Your task to perform on an android device: What's on my calendar today? Image 0: 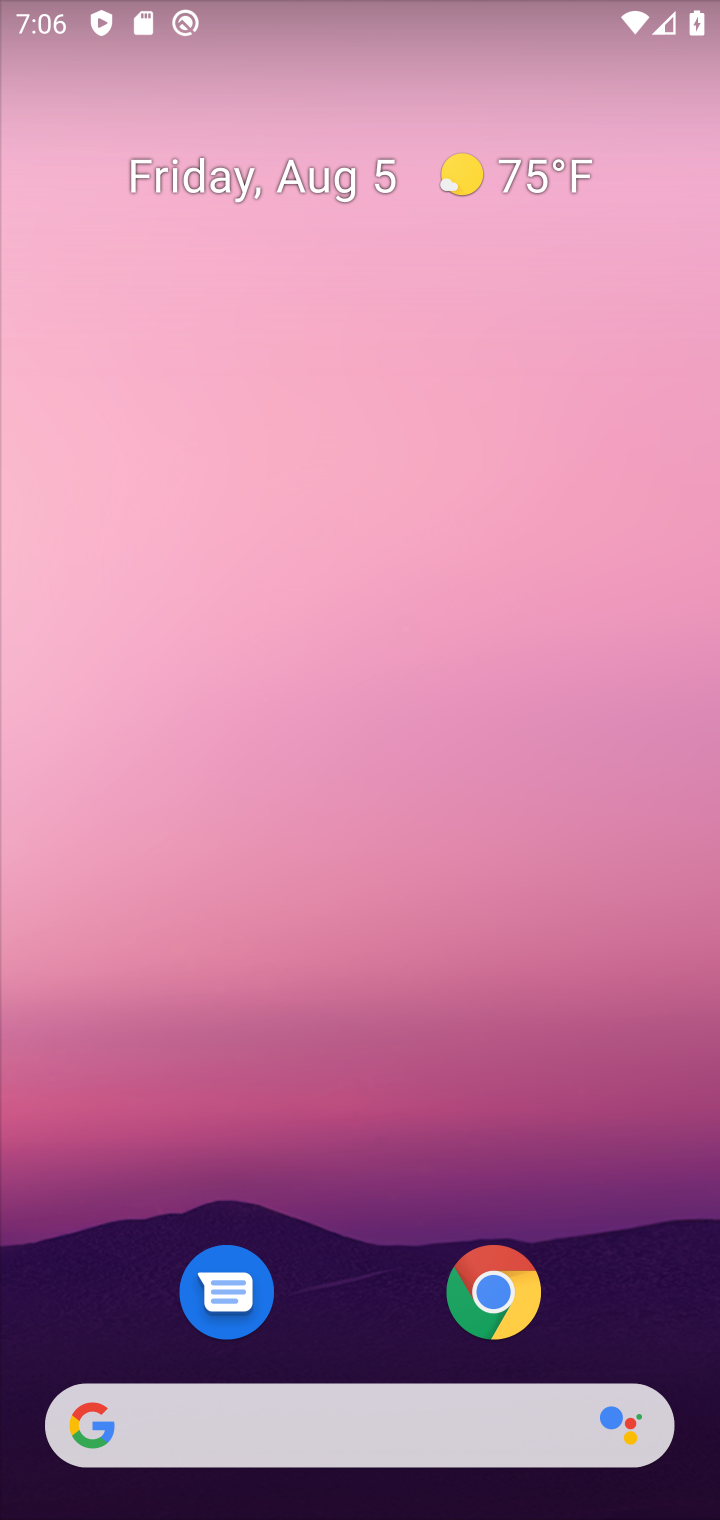
Step 0: drag from (351, 1223) to (276, 28)
Your task to perform on an android device: What's on my calendar today? Image 1: 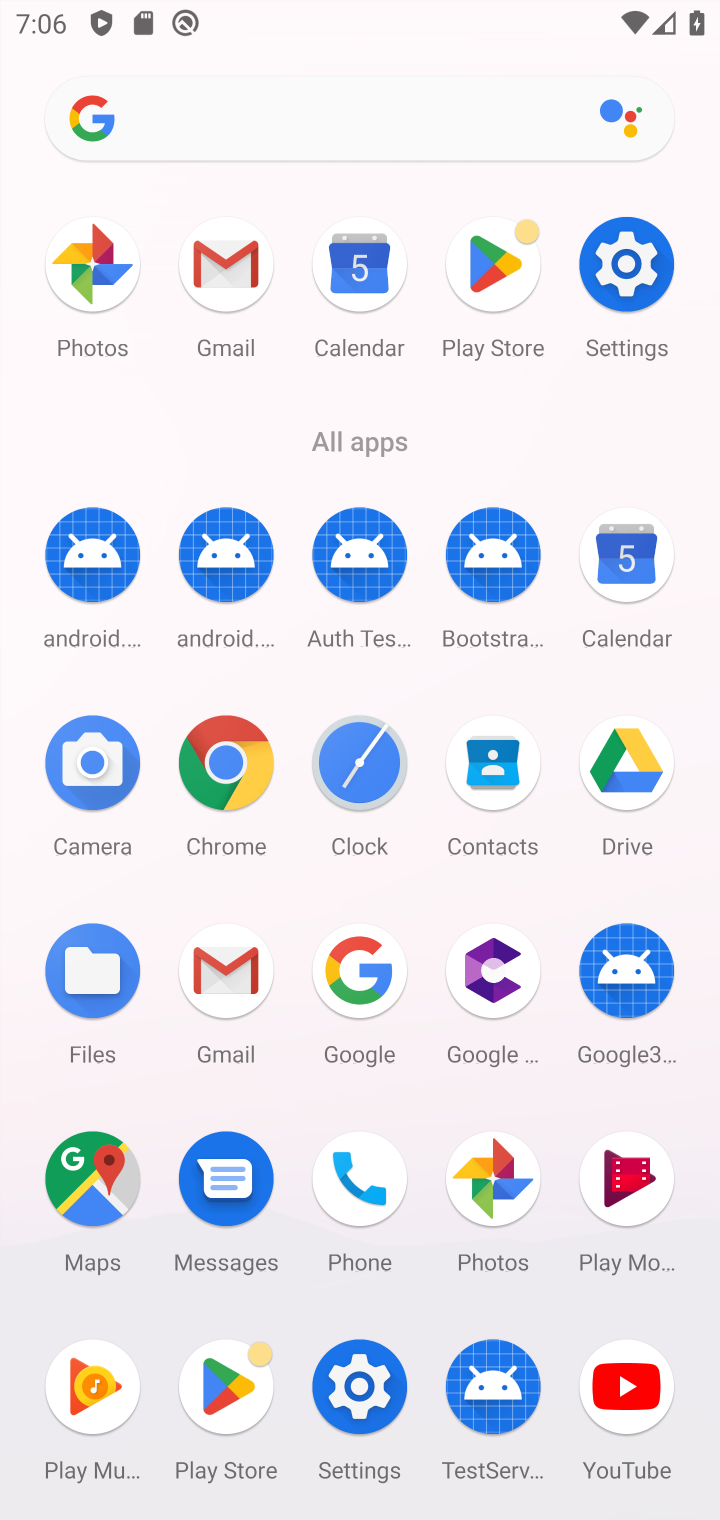
Step 1: click (636, 556)
Your task to perform on an android device: What's on my calendar today? Image 2: 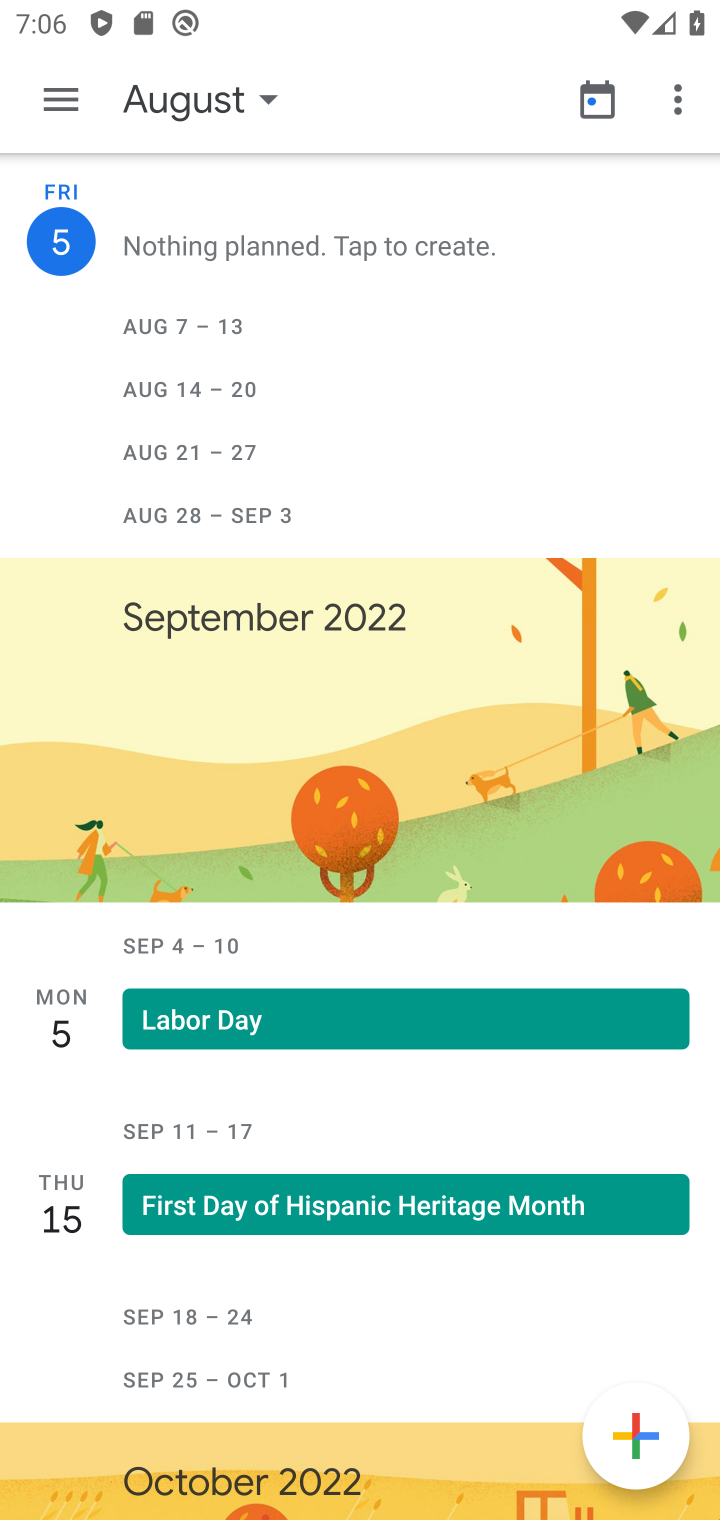
Step 2: task complete